Your task to perform on an android device: Open CNN.com Image 0: 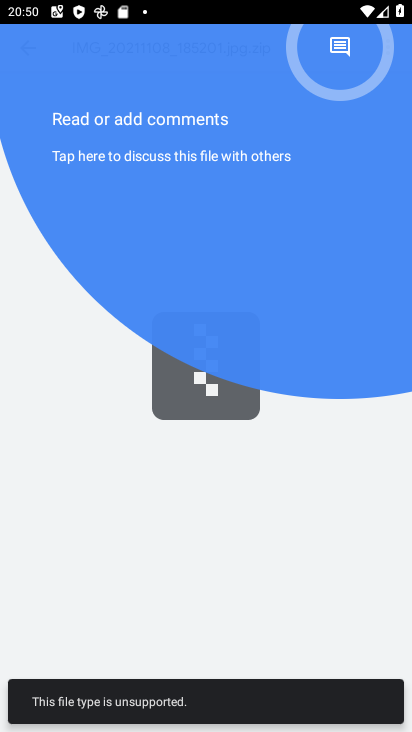
Step 0: press home button
Your task to perform on an android device: Open CNN.com Image 1: 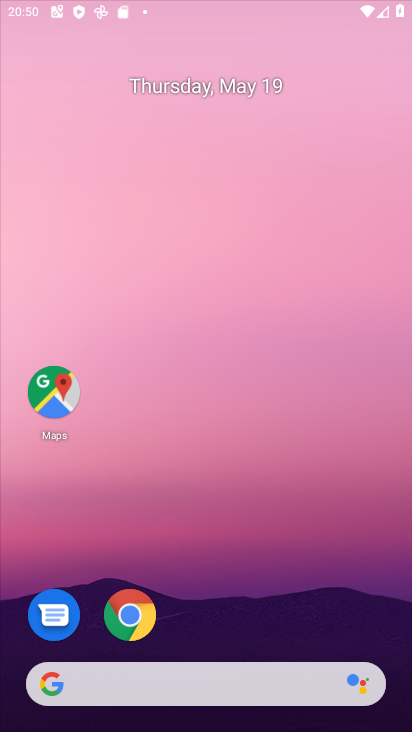
Step 1: drag from (201, 599) to (206, 64)
Your task to perform on an android device: Open CNN.com Image 2: 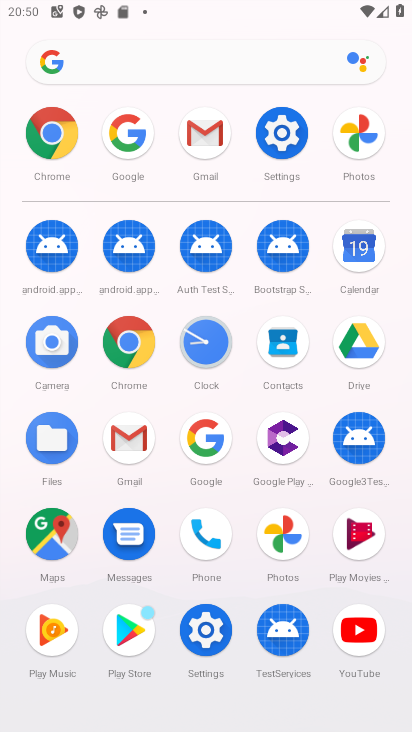
Step 2: click (208, 437)
Your task to perform on an android device: Open CNN.com Image 3: 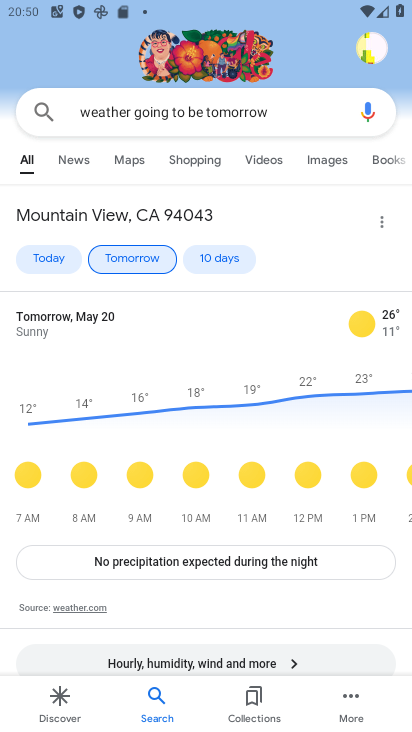
Step 3: click (285, 112)
Your task to perform on an android device: Open CNN.com Image 4: 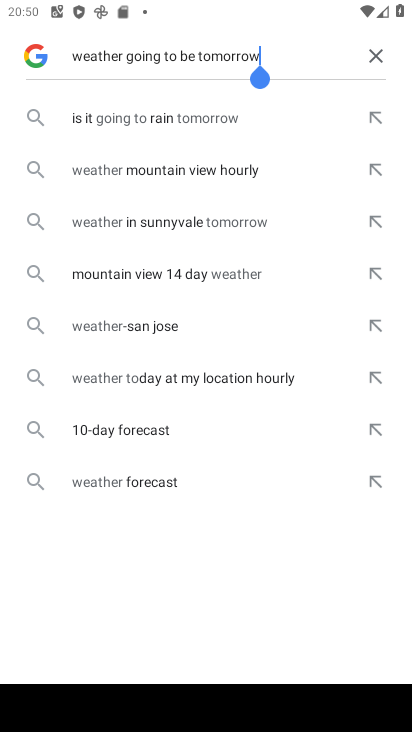
Step 4: click (372, 55)
Your task to perform on an android device: Open CNN.com Image 5: 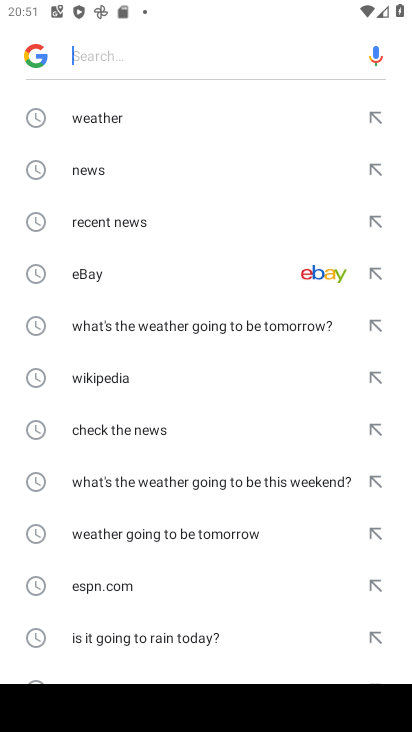
Step 5: drag from (190, 539) to (210, 195)
Your task to perform on an android device: Open CNN.com Image 6: 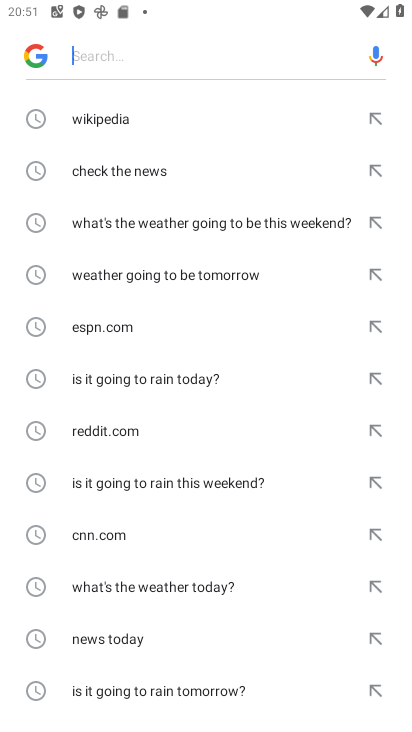
Step 6: click (124, 531)
Your task to perform on an android device: Open CNN.com Image 7: 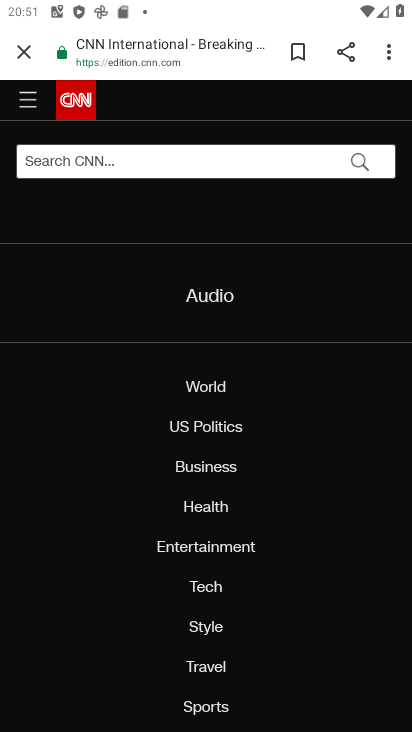
Step 7: task complete